Your task to perform on an android device: turn off data saver in the chrome app Image 0: 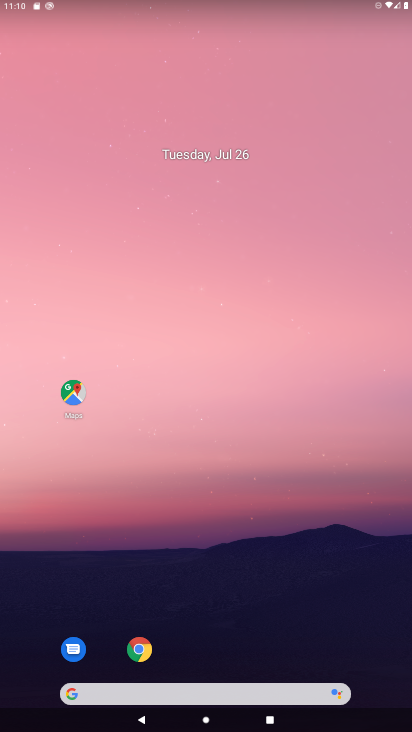
Step 0: click (140, 652)
Your task to perform on an android device: turn off data saver in the chrome app Image 1: 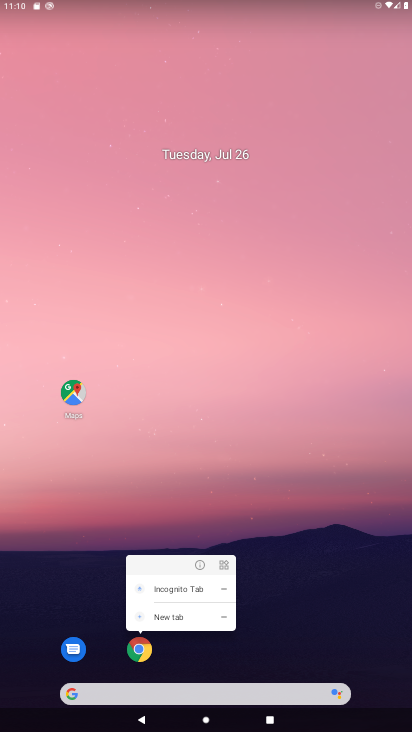
Step 1: click (136, 646)
Your task to perform on an android device: turn off data saver in the chrome app Image 2: 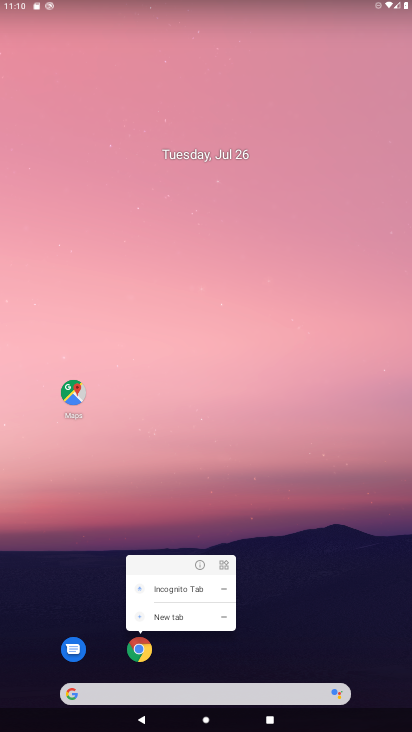
Step 2: click (137, 650)
Your task to perform on an android device: turn off data saver in the chrome app Image 3: 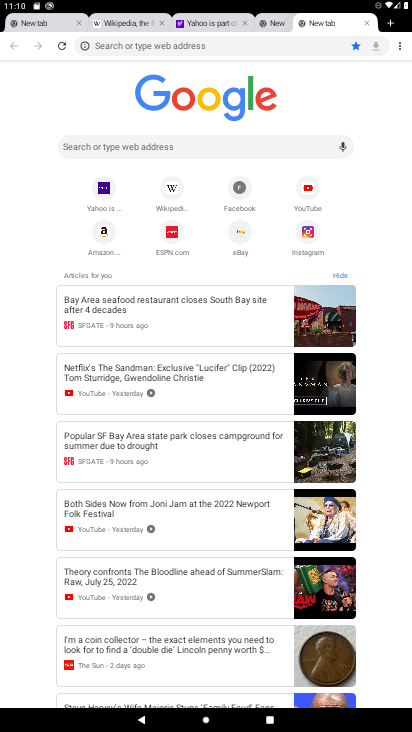
Step 3: click (402, 46)
Your task to perform on an android device: turn off data saver in the chrome app Image 4: 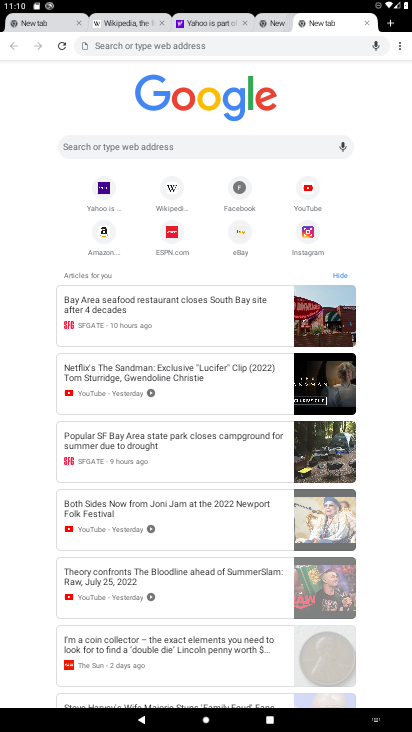
Step 4: click (402, 46)
Your task to perform on an android device: turn off data saver in the chrome app Image 5: 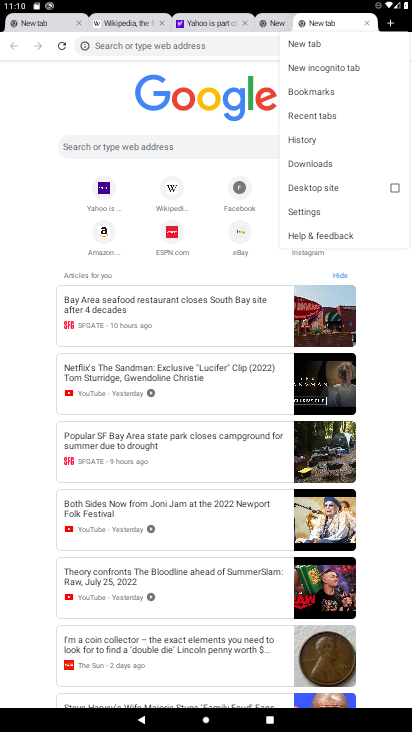
Step 5: click (312, 213)
Your task to perform on an android device: turn off data saver in the chrome app Image 6: 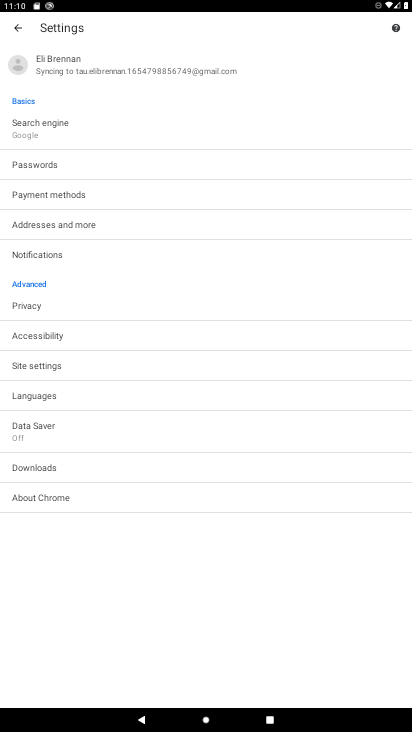
Step 6: click (41, 432)
Your task to perform on an android device: turn off data saver in the chrome app Image 7: 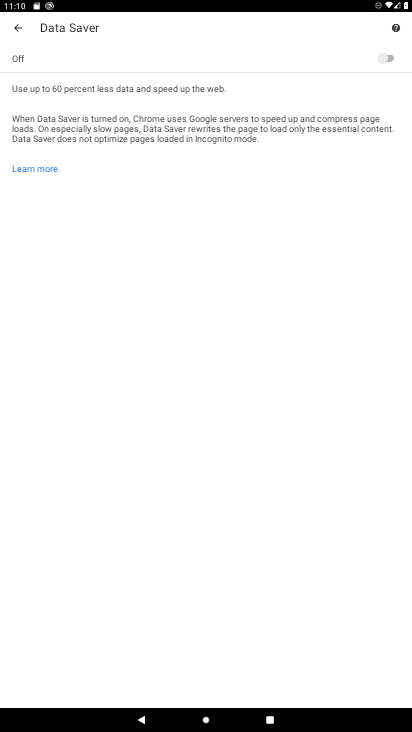
Step 7: task complete